Your task to perform on an android device: Do I have any events this weekend? Image 0: 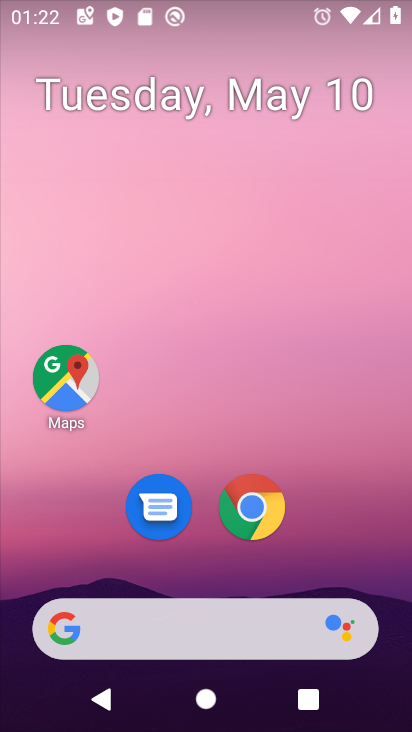
Step 0: drag from (261, 598) to (270, 153)
Your task to perform on an android device: Do I have any events this weekend? Image 1: 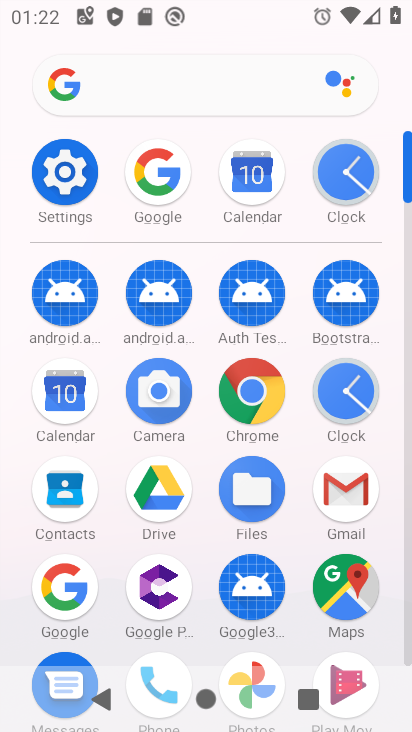
Step 1: click (65, 387)
Your task to perform on an android device: Do I have any events this weekend? Image 2: 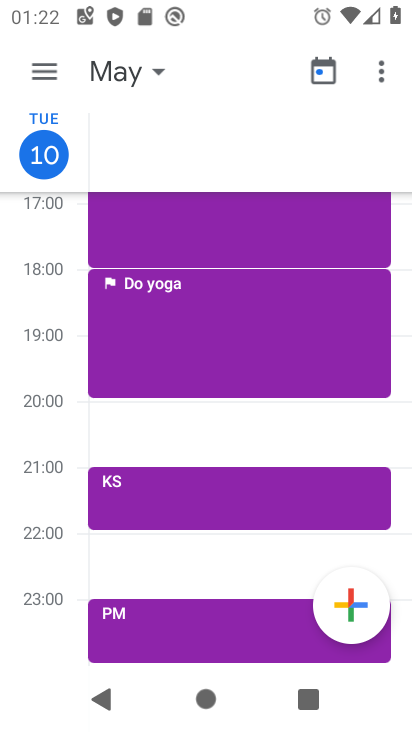
Step 2: click (112, 67)
Your task to perform on an android device: Do I have any events this weekend? Image 3: 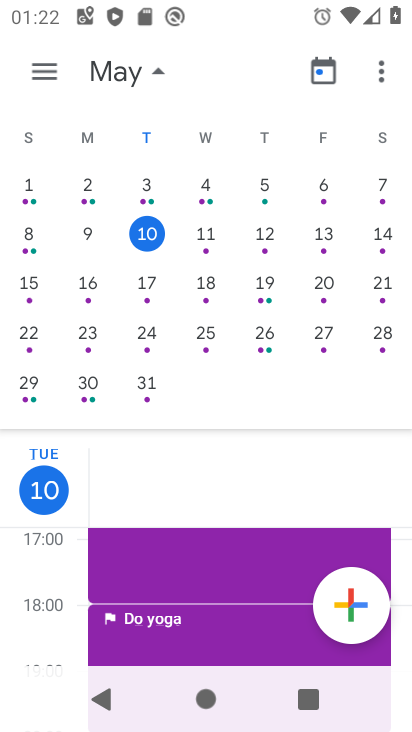
Step 3: click (389, 241)
Your task to perform on an android device: Do I have any events this weekend? Image 4: 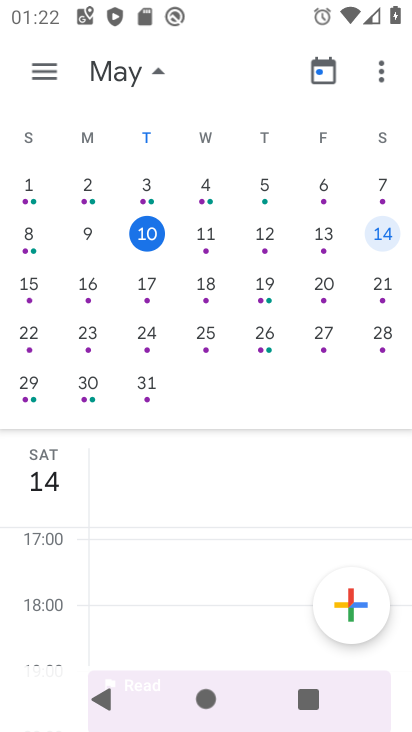
Step 4: task complete